Your task to perform on an android device: Search for seafood restaurants on Google Maps Image 0: 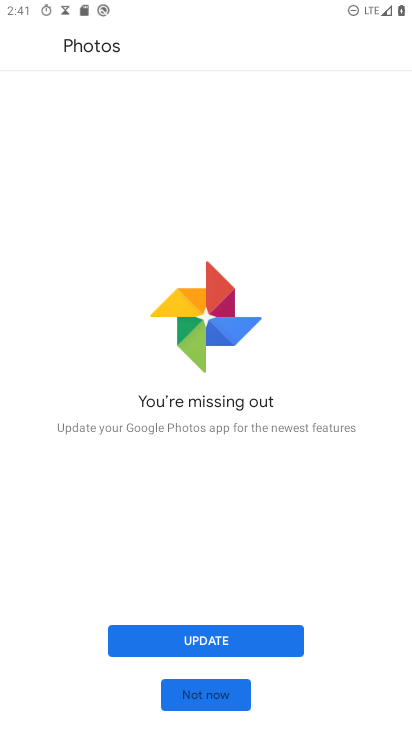
Step 0: press home button
Your task to perform on an android device: Search for seafood restaurants on Google Maps Image 1: 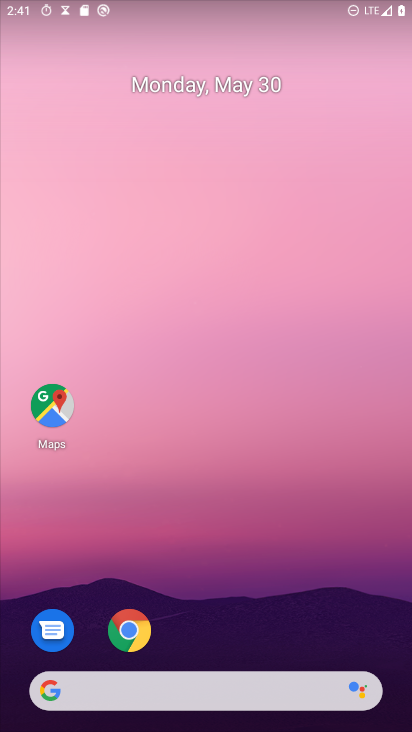
Step 1: drag from (185, 697) to (112, 118)
Your task to perform on an android device: Search for seafood restaurants on Google Maps Image 2: 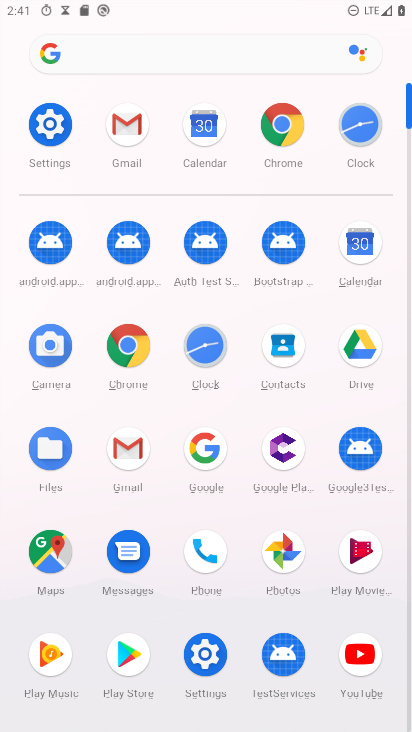
Step 2: click (57, 550)
Your task to perform on an android device: Search for seafood restaurants on Google Maps Image 3: 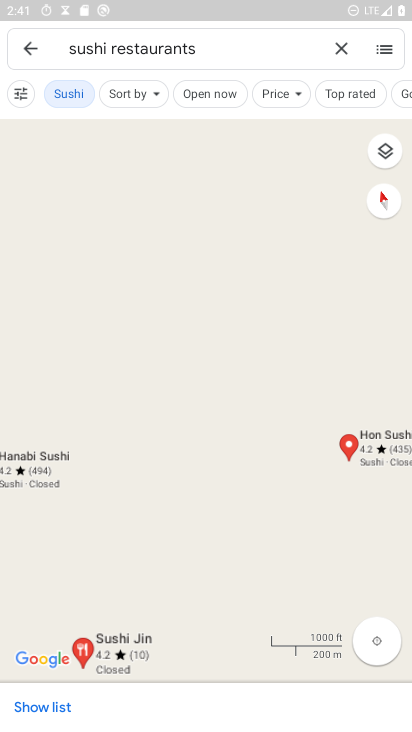
Step 3: click (336, 48)
Your task to perform on an android device: Search for seafood restaurants on Google Maps Image 4: 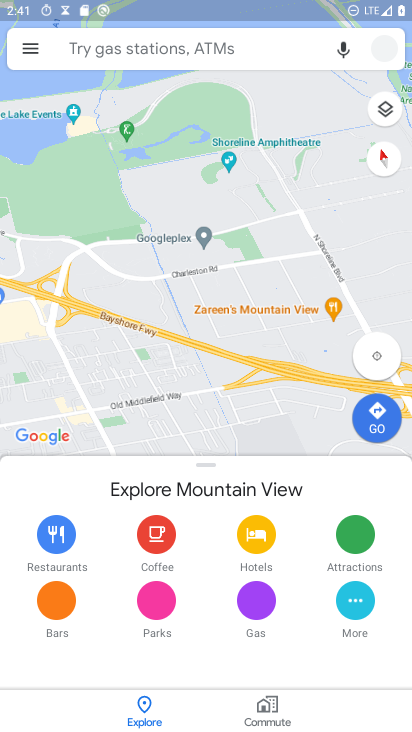
Step 4: click (119, 47)
Your task to perform on an android device: Search for seafood restaurants on Google Maps Image 5: 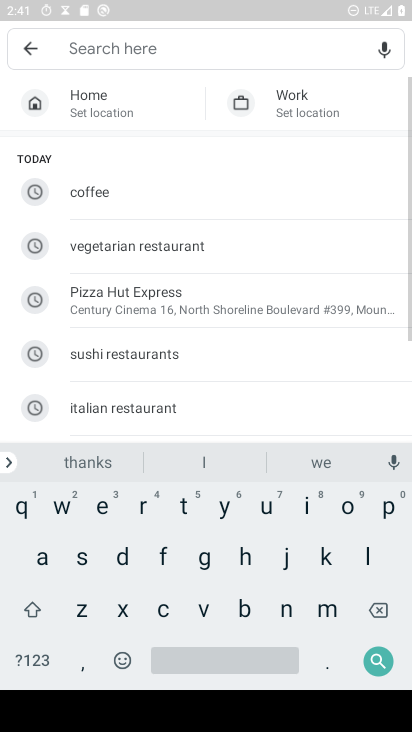
Step 5: click (76, 556)
Your task to perform on an android device: Search for seafood restaurants on Google Maps Image 6: 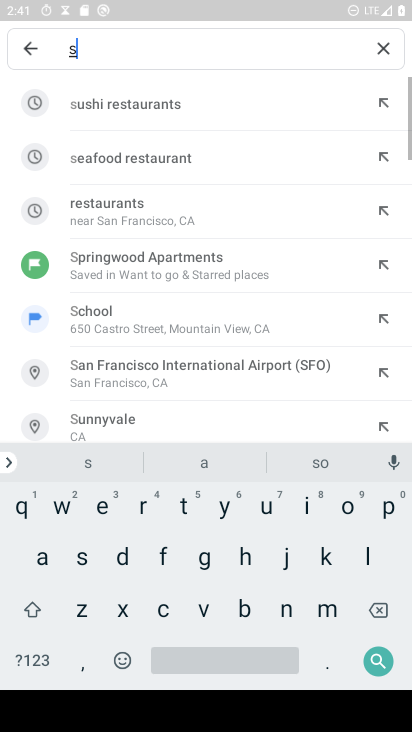
Step 6: click (101, 501)
Your task to perform on an android device: Search for seafood restaurants on Google Maps Image 7: 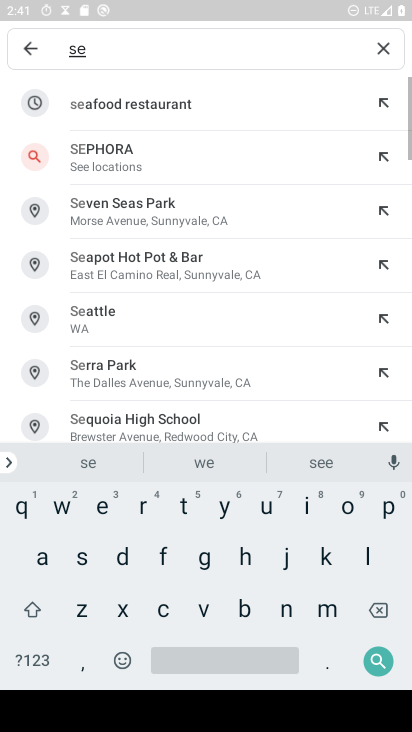
Step 7: click (129, 95)
Your task to perform on an android device: Search for seafood restaurants on Google Maps Image 8: 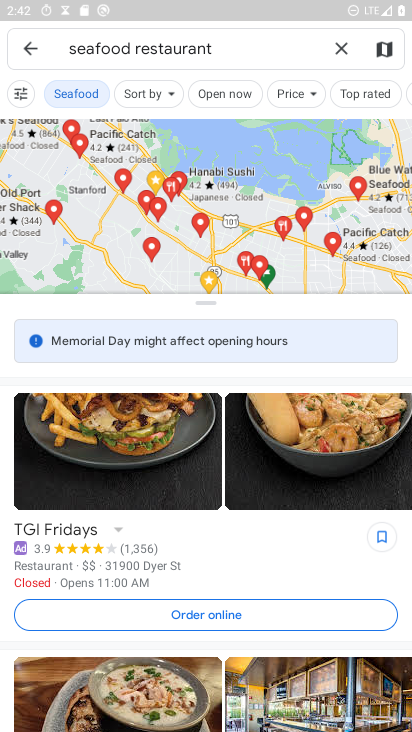
Step 8: click (128, 234)
Your task to perform on an android device: Search for seafood restaurants on Google Maps Image 9: 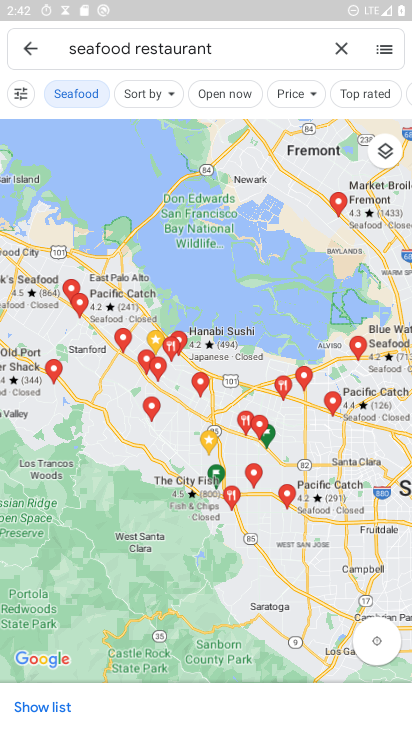
Step 9: task complete